Your task to perform on an android device: Add razer blade to the cart on costco Image 0: 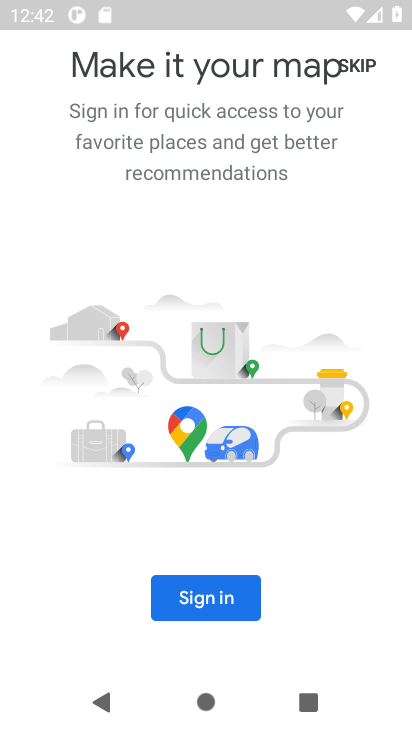
Step 0: press home button
Your task to perform on an android device: Add razer blade to the cart on costco Image 1: 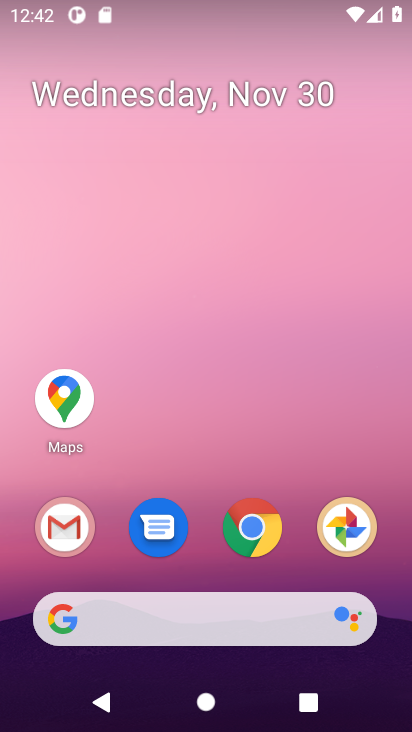
Step 1: click (187, 615)
Your task to perform on an android device: Add razer blade to the cart on costco Image 2: 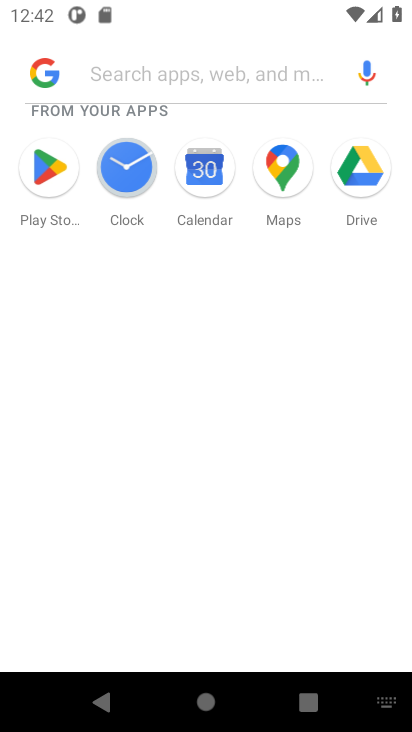
Step 2: press home button
Your task to perform on an android device: Add razer blade to the cart on costco Image 3: 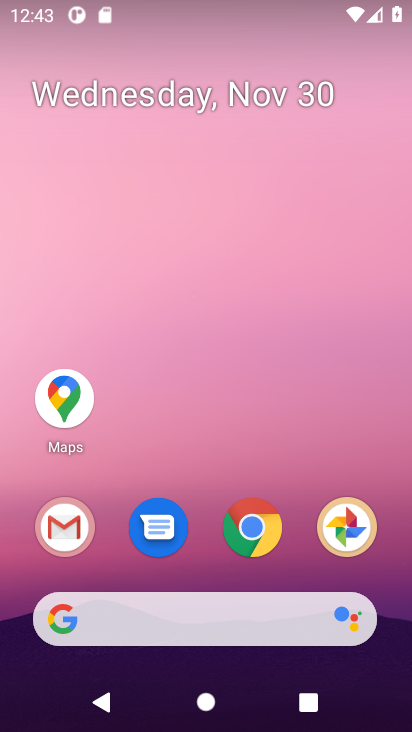
Step 3: click (161, 628)
Your task to perform on an android device: Add razer blade to the cart on costco Image 4: 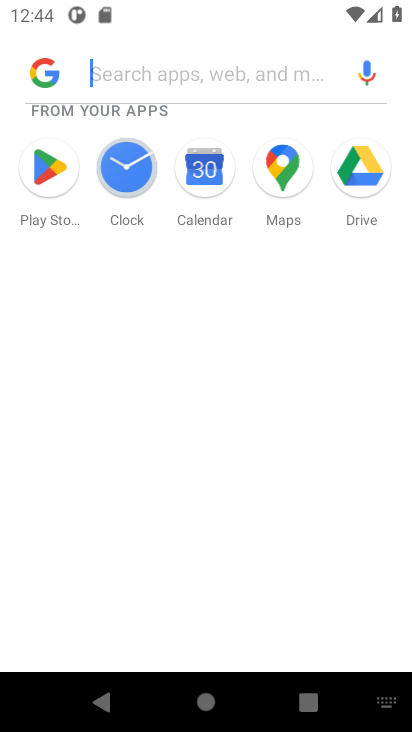
Step 4: press home button
Your task to perform on an android device: Add razer blade to the cart on costco Image 5: 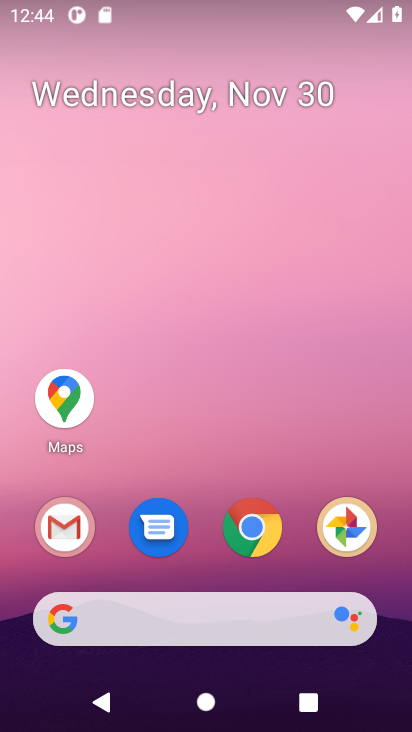
Step 5: click (269, 539)
Your task to perform on an android device: Add razer blade to the cart on costco Image 6: 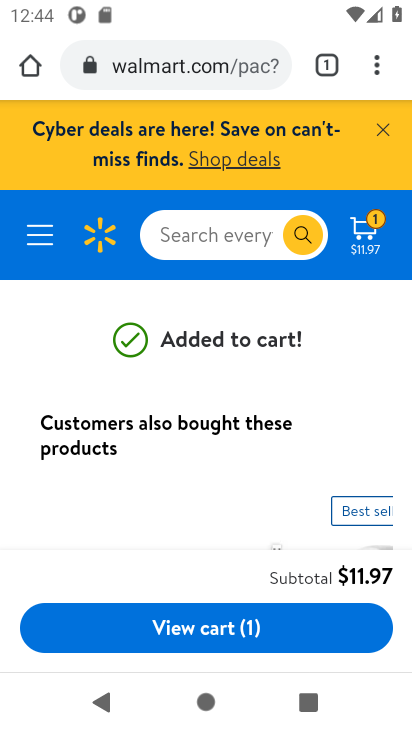
Step 6: click (197, 70)
Your task to perform on an android device: Add razer blade to the cart on costco Image 7: 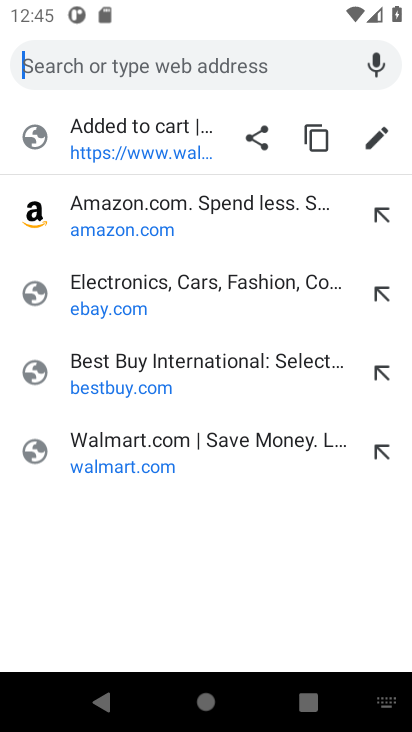
Step 7: type "costco"
Your task to perform on an android device: Add razer blade to the cart on costco Image 8: 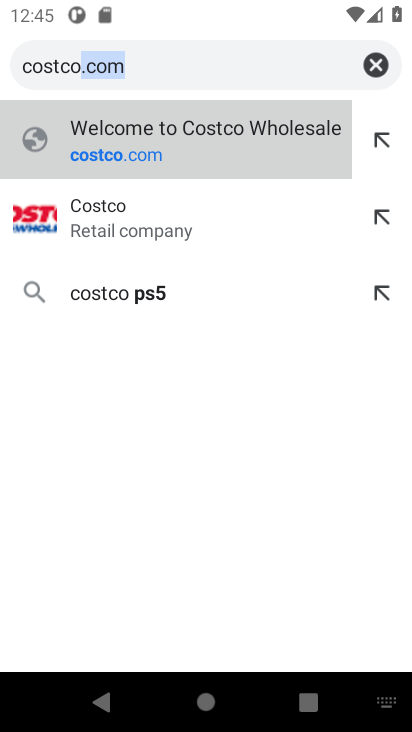
Step 8: click (125, 214)
Your task to perform on an android device: Add razer blade to the cart on costco Image 9: 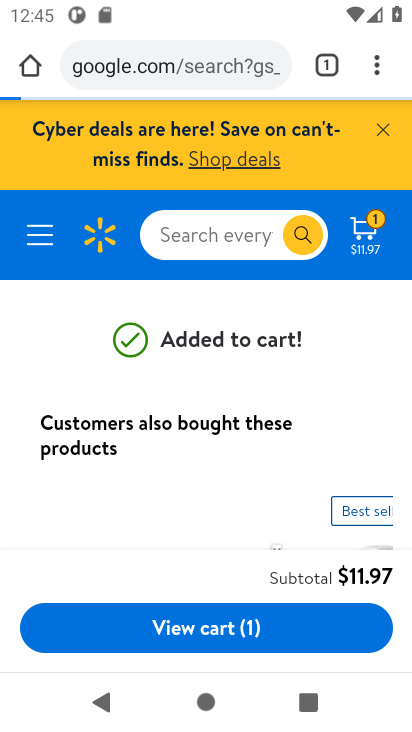
Step 9: click (181, 240)
Your task to perform on an android device: Add razer blade to the cart on costco Image 10: 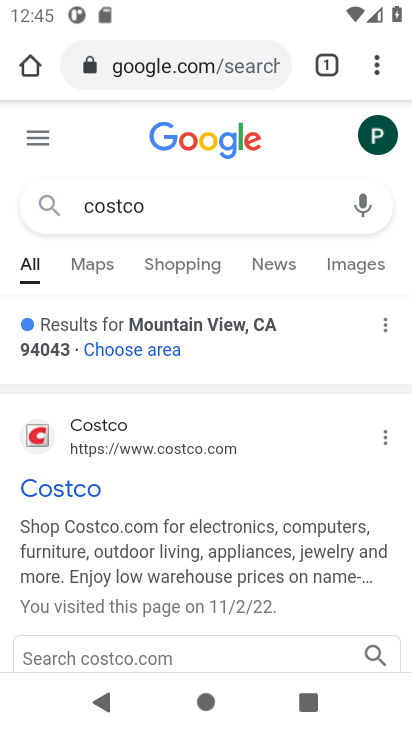
Step 10: click (85, 484)
Your task to perform on an android device: Add razer blade to the cart on costco Image 11: 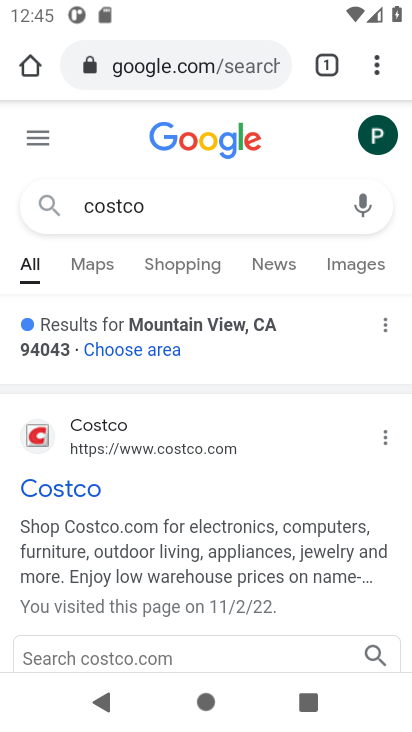
Step 11: click (45, 482)
Your task to perform on an android device: Add razer blade to the cart on costco Image 12: 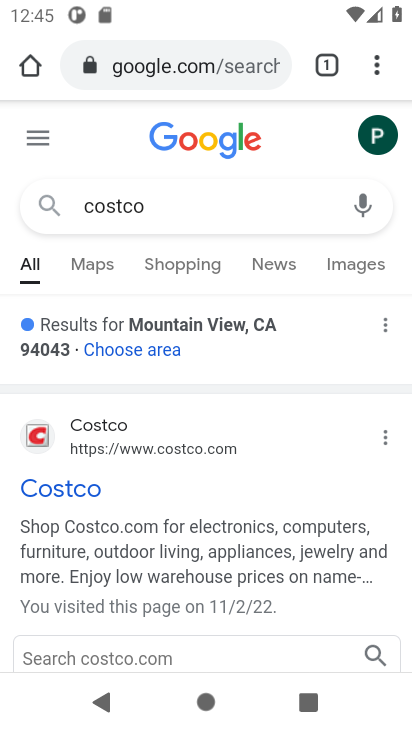
Step 12: click (48, 486)
Your task to perform on an android device: Add razer blade to the cart on costco Image 13: 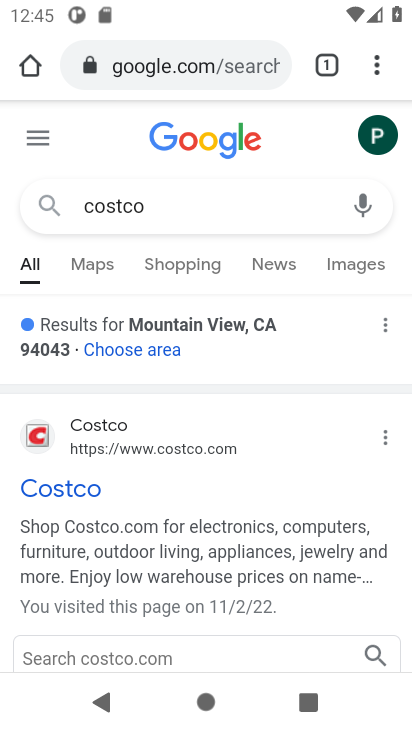
Step 13: click (48, 486)
Your task to perform on an android device: Add razer blade to the cart on costco Image 14: 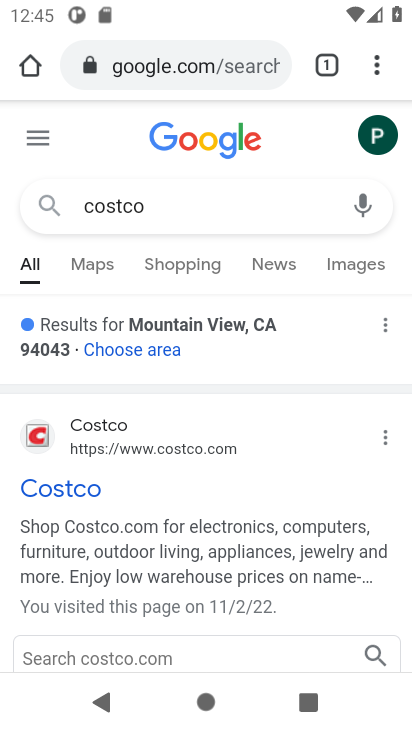
Step 14: click (48, 486)
Your task to perform on an android device: Add razer blade to the cart on costco Image 15: 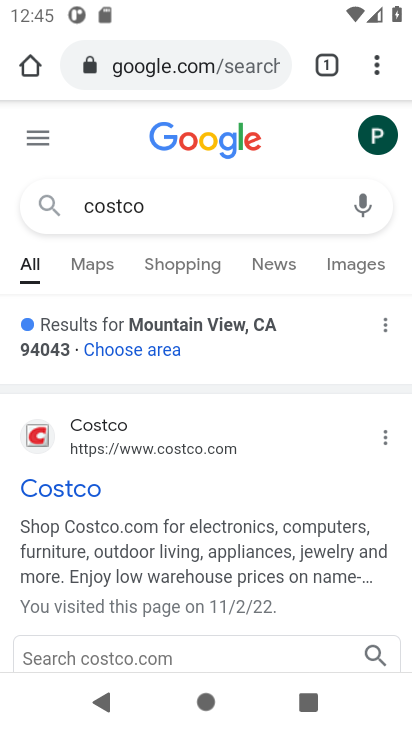
Step 15: click (75, 483)
Your task to perform on an android device: Add razer blade to the cart on costco Image 16: 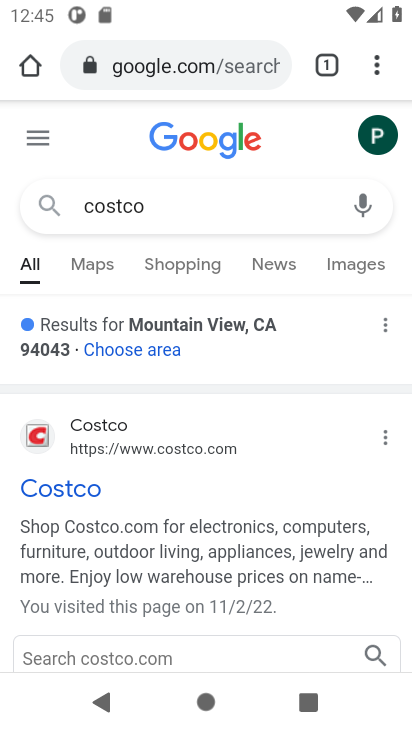
Step 16: click (75, 483)
Your task to perform on an android device: Add razer blade to the cart on costco Image 17: 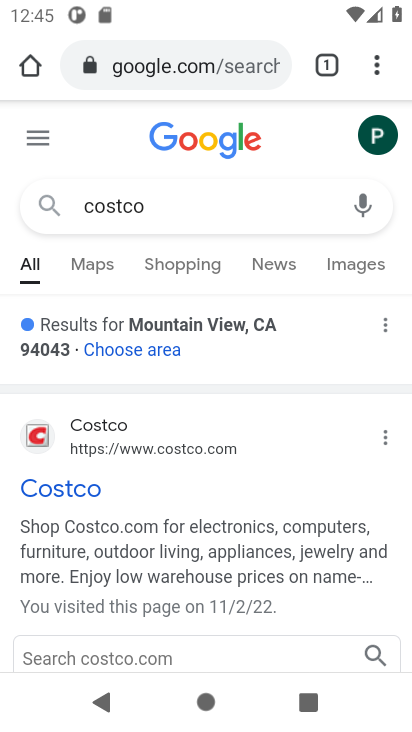
Step 17: click (75, 483)
Your task to perform on an android device: Add razer blade to the cart on costco Image 18: 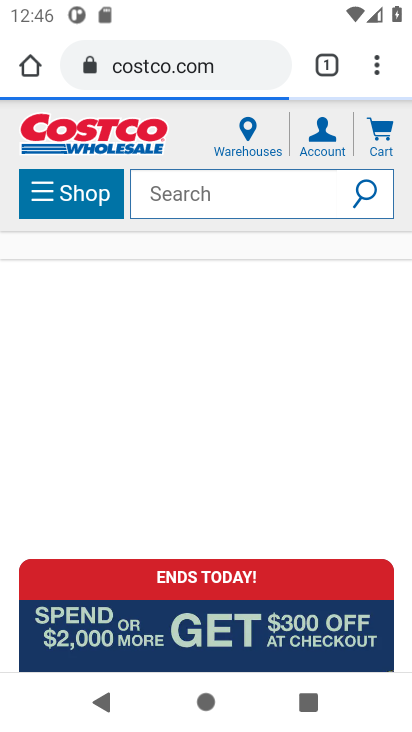
Step 18: task complete